Your task to perform on an android device: Play the last video I watched on Youtube Image 0: 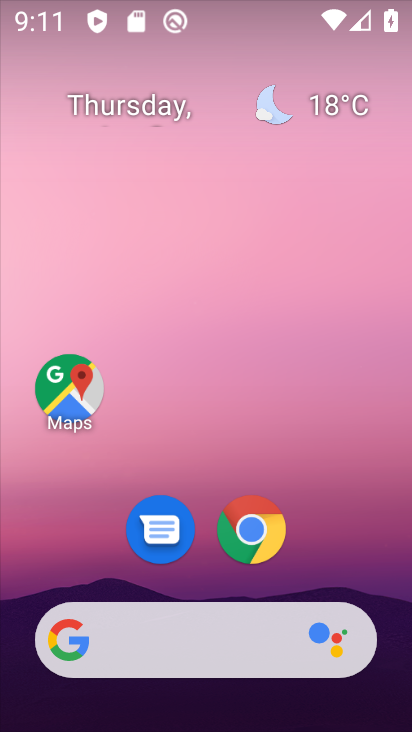
Step 0: drag from (395, 708) to (309, 128)
Your task to perform on an android device: Play the last video I watched on Youtube Image 1: 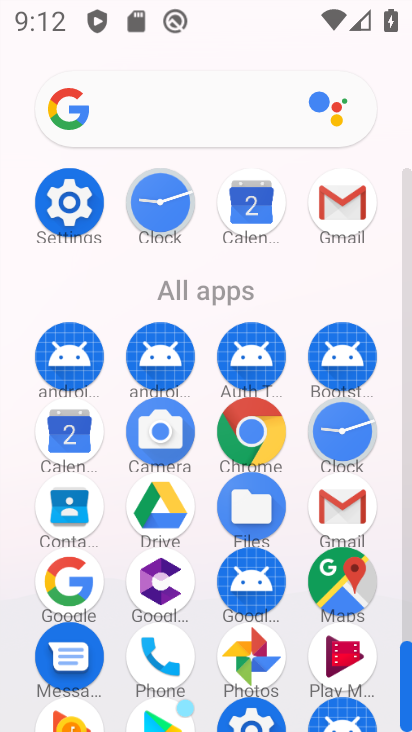
Step 1: drag from (105, 618) to (105, 287)
Your task to perform on an android device: Play the last video I watched on Youtube Image 2: 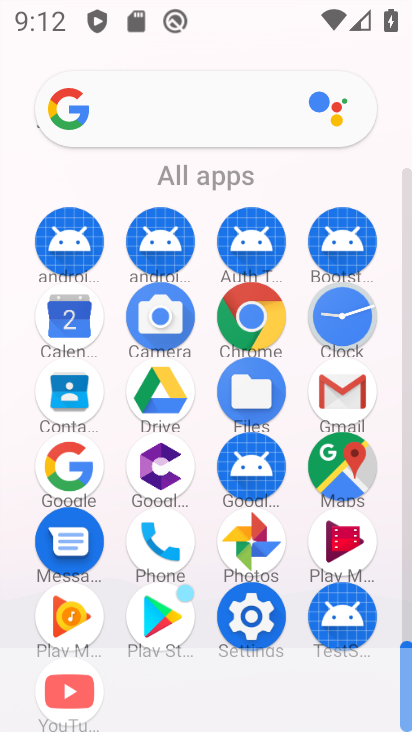
Step 2: click (62, 677)
Your task to perform on an android device: Play the last video I watched on Youtube Image 3: 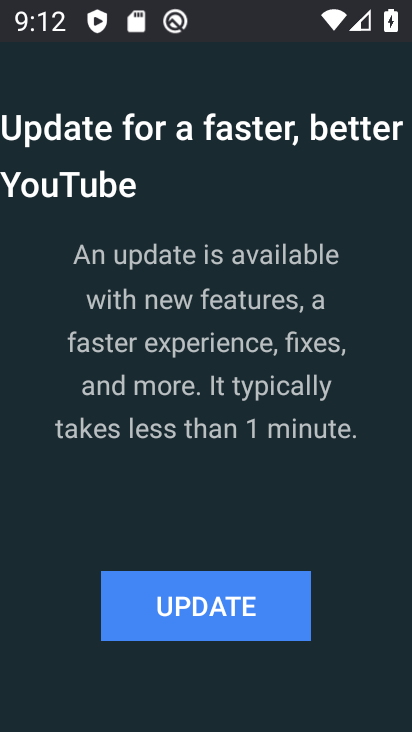
Step 3: click (144, 611)
Your task to perform on an android device: Play the last video I watched on Youtube Image 4: 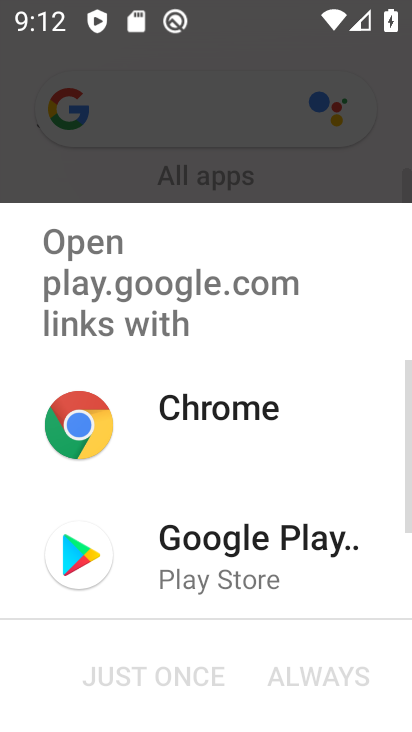
Step 4: click (164, 546)
Your task to perform on an android device: Play the last video I watched on Youtube Image 5: 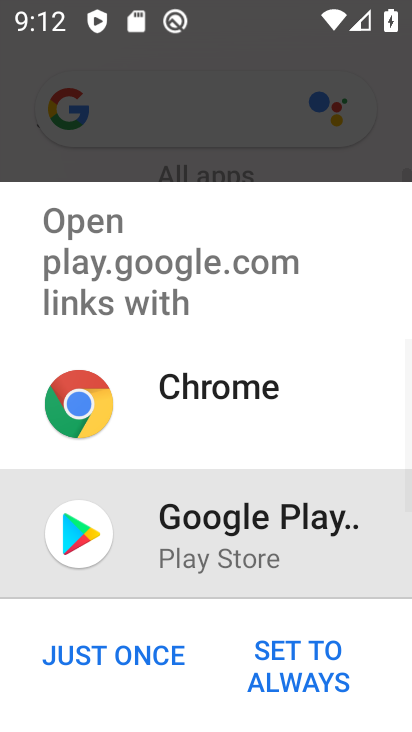
Step 5: click (146, 651)
Your task to perform on an android device: Play the last video I watched on Youtube Image 6: 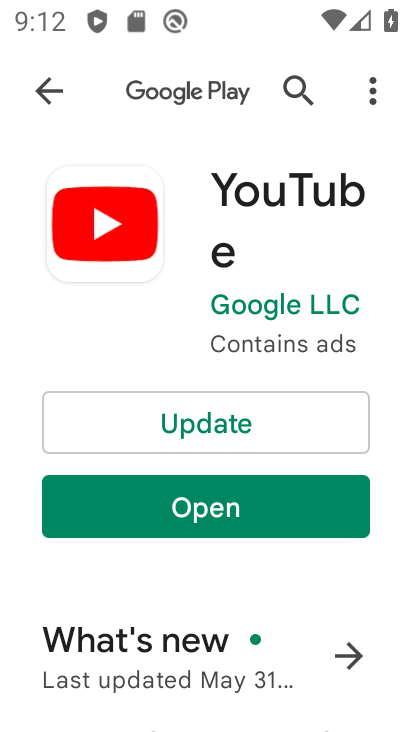
Step 6: click (267, 417)
Your task to perform on an android device: Play the last video I watched on Youtube Image 7: 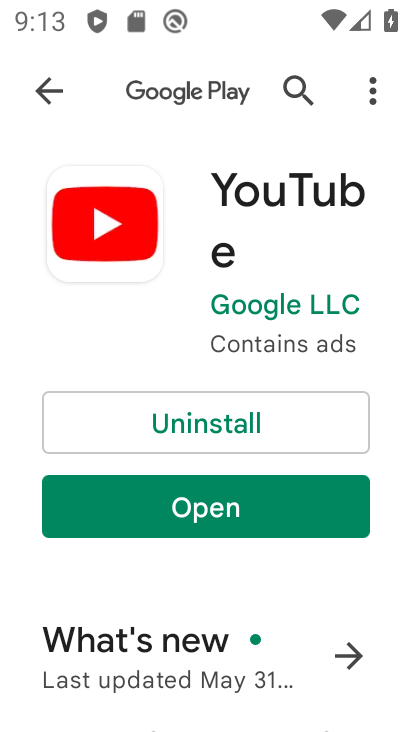
Step 7: click (213, 497)
Your task to perform on an android device: Play the last video I watched on Youtube Image 8: 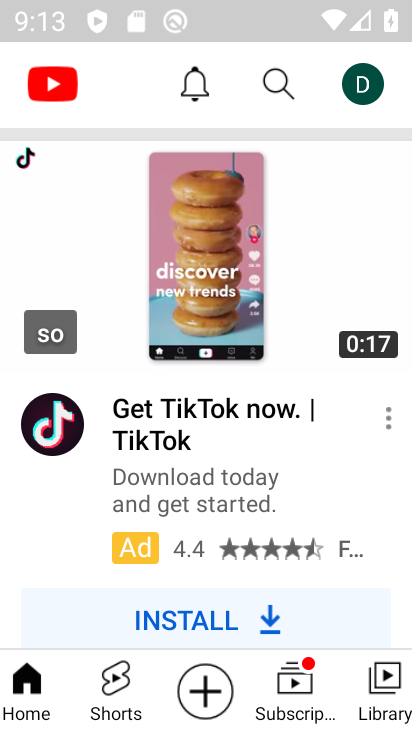
Step 8: click (384, 697)
Your task to perform on an android device: Play the last video I watched on Youtube Image 9: 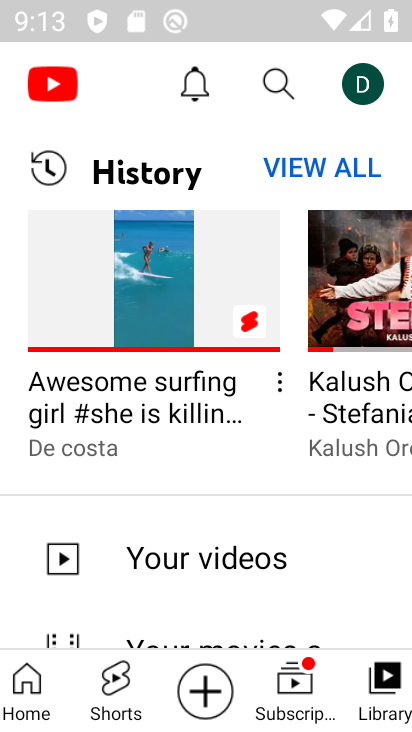
Step 9: click (157, 282)
Your task to perform on an android device: Play the last video I watched on Youtube Image 10: 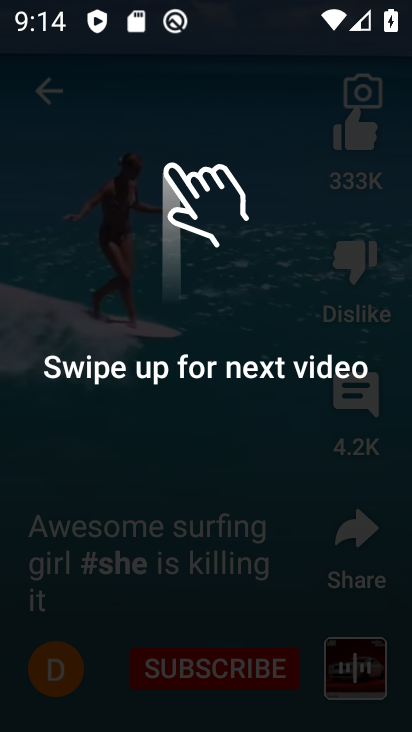
Step 10: task complete